Your task to perform on an android device: toggle location history Image 0: 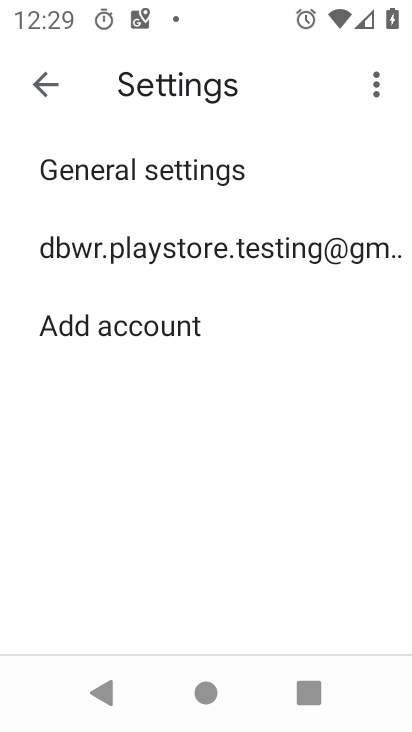
Step 0: press home button
Your task to perform on an android device: toggle location history Image 1: 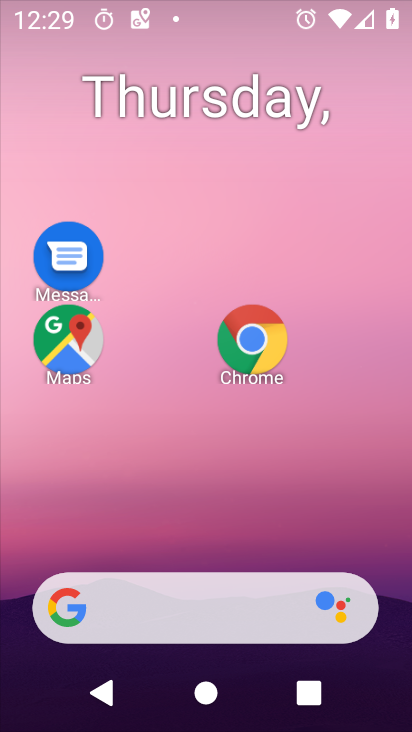
Step 1: drag from (204, 531) to (190, 64)
Your task to perform on an android device: toggle location history Image 2: 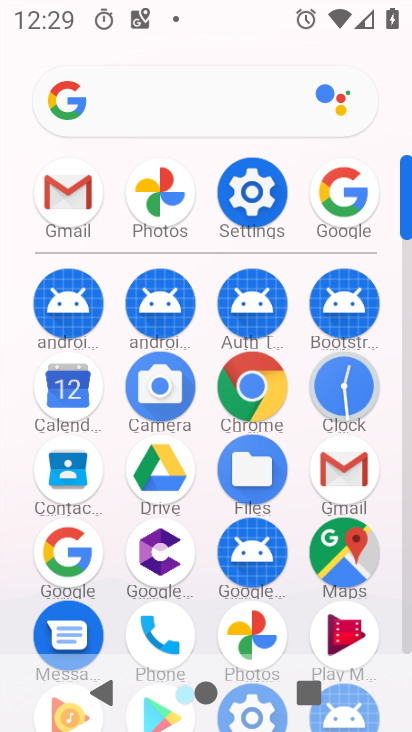
Step 2: click (253, 189)
Your task to perform on an android device: toggle location history Image 3: 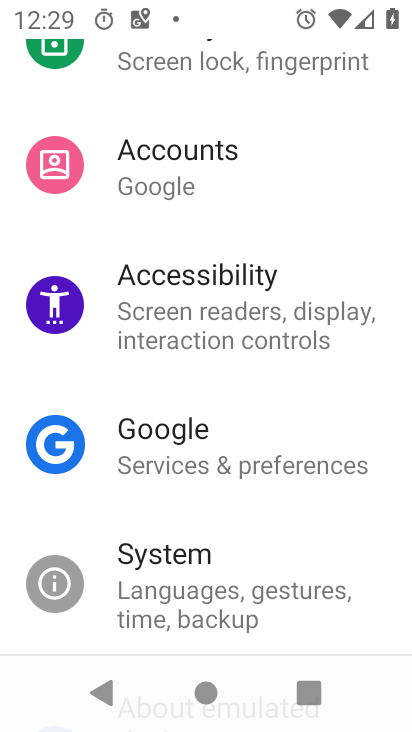
Step 3: drag from (254, 535) to (230, 635)
Your task to perform on an android device: toggle location history Image 4: 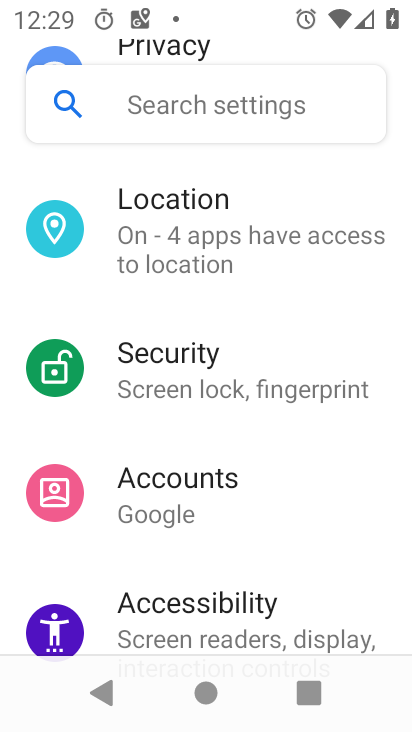
Step 4: click (182, 233)
Your task to perform on an android device: toggle location history Image 5: 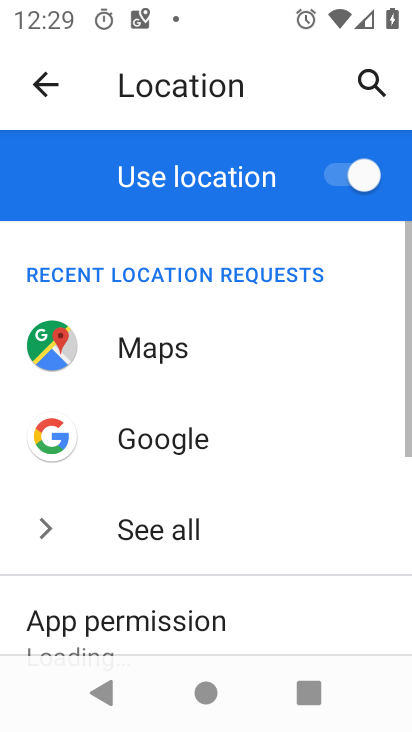
Step 5: drag from (242, 597) to (259, 101)
Your task to perform on an android device: toggle location history Image 6: 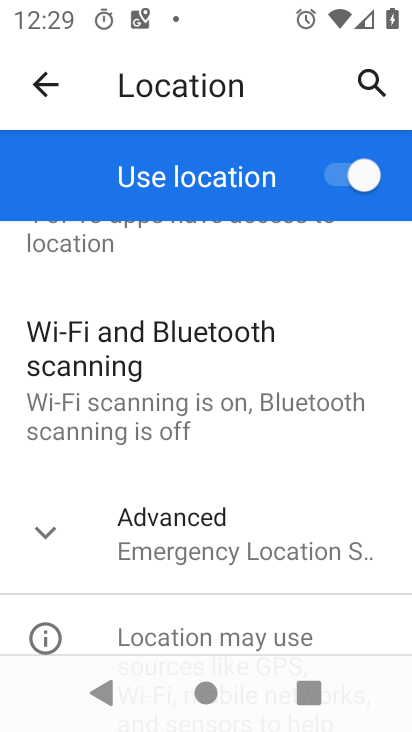
Step 6: click (168, 535)
Your task to perform on an android device: toggle location history Image 7: 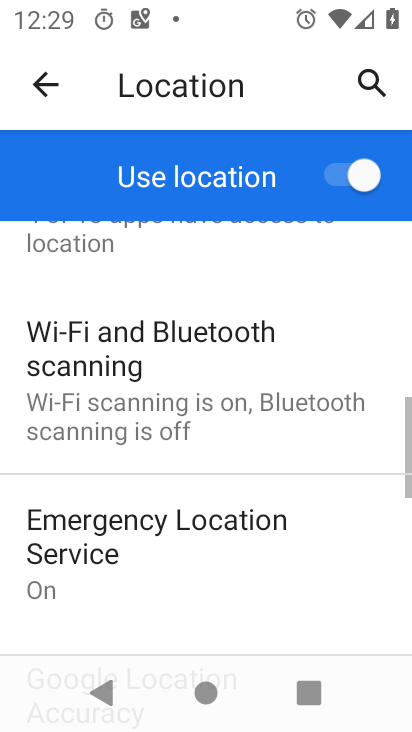
Step 7: drag from (254, 546) to (255, 182)
Your task to perform on an android device: toggle location history Image 8: 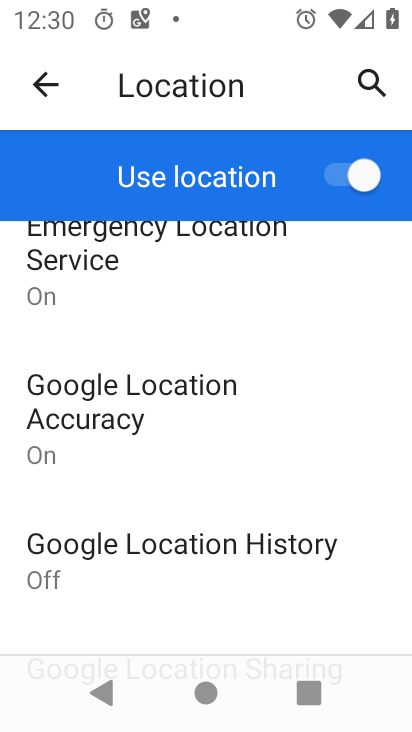
Step 8: click (102, 539)
Your task to perform on an android device: toggle location history Image 9: 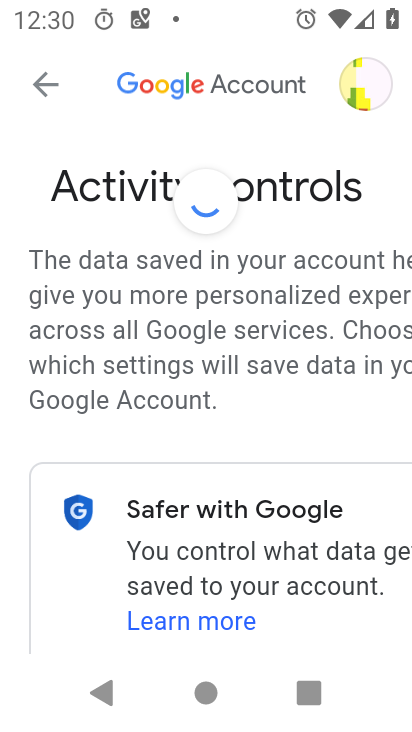
Step 9: drag from (282, 604) to (278, 90)
Your task to perform on an android device: toggle location history Image 10: 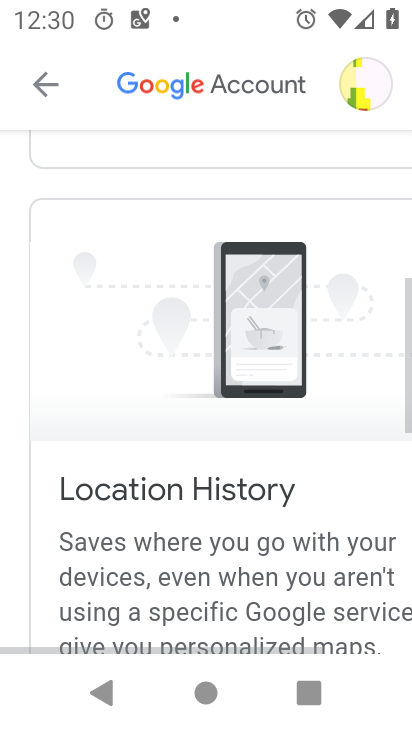
Step 10: drag from (285, 607) to (314, 168)
Your task to perform on an android device: toggle location history Image 11: 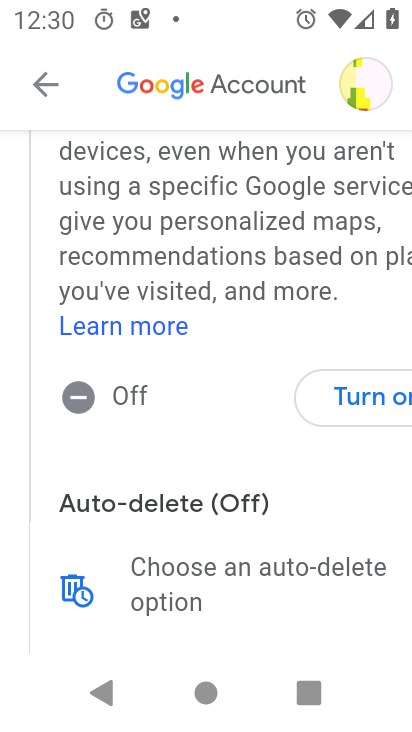
Step 11: click (355, 396)
Your task to perform on an android device: toggle location history Image 12: 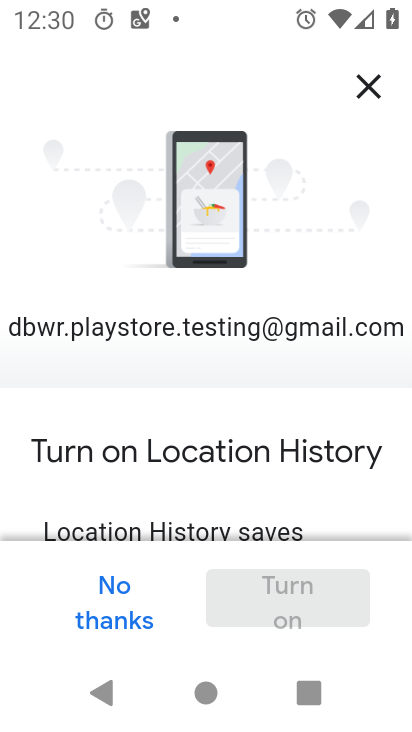
Step 12: drag from (324, 530) to (326, 15)
Your task to perform on an android device: toggle location history Image 13: 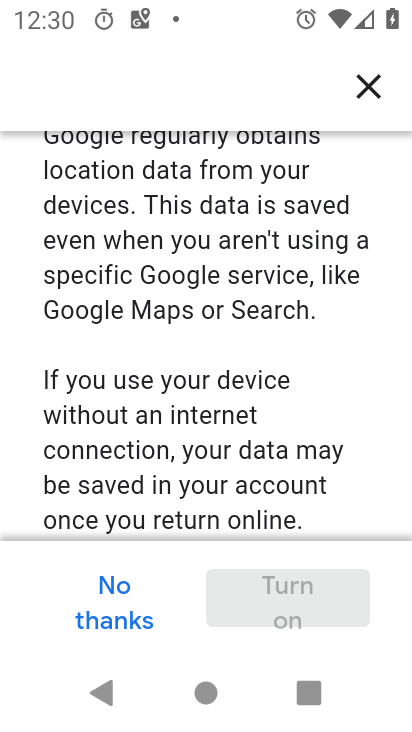
Step 13: drag from (312, 473) to (329, 105)
Your task to perform on an android device: toggle location history Image 14: 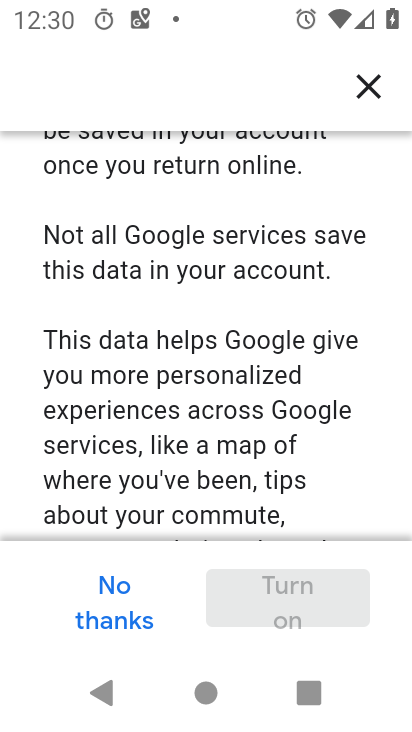
Step 14: drag from (282, 500) to (335, 176)
Your task to perform on an android device: toggle location history Image 15: 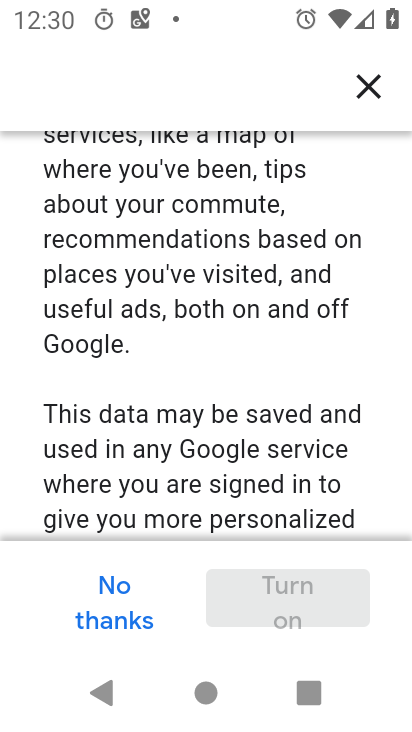
Step 15: drag from (295, 528) to (307, 18)
Your task to perform on an android device: toggle location history Image 16: 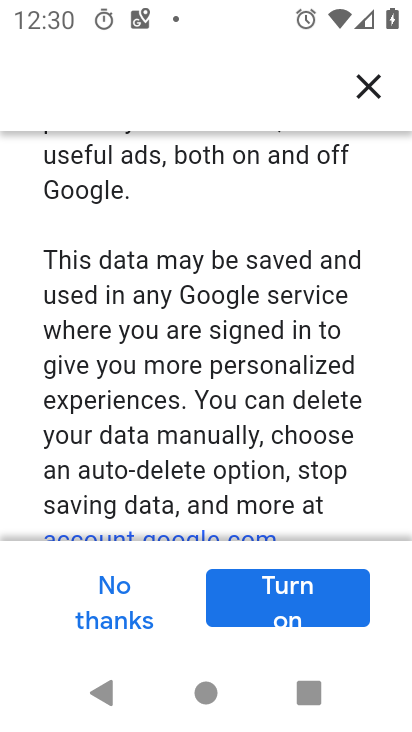
Step 16: click (285, 589)
Your task to perform on an android device: toggle location history Image 17: 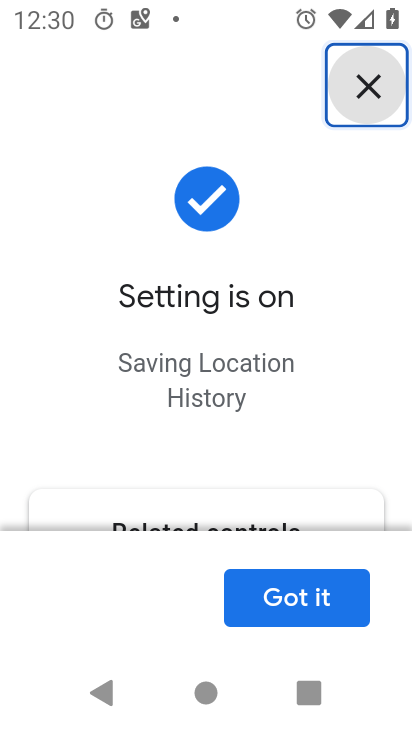
Step 17: click (288, 603)
Your task to perform on an android device: toggle location history Image 18: 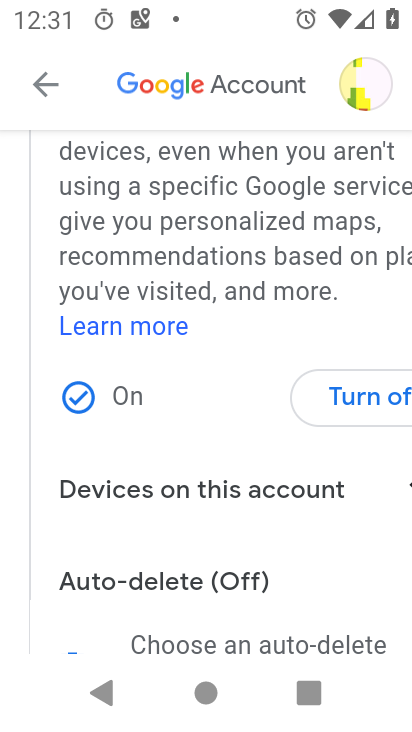
Step 18: task complete